Your task to perform on an android device: Open Google Chrome and open the bookmarks view Image 0: 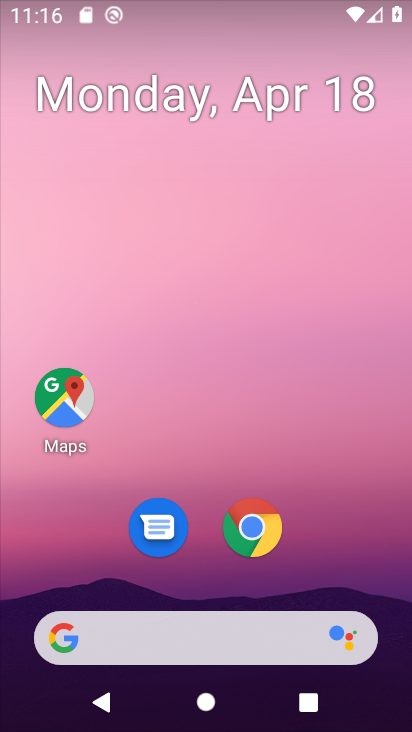
Step 0: click (261, 531)
Your task to perform on an android device: Open Google Chrome and open the bookmarks view Image 1: 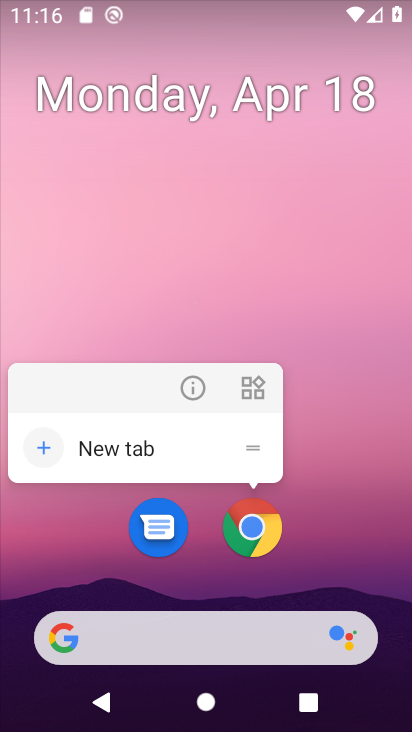
Step 1: click (261, 531)
Your task to perform on an android device: Open Google Chrome and open the bookmarks view Image 2: 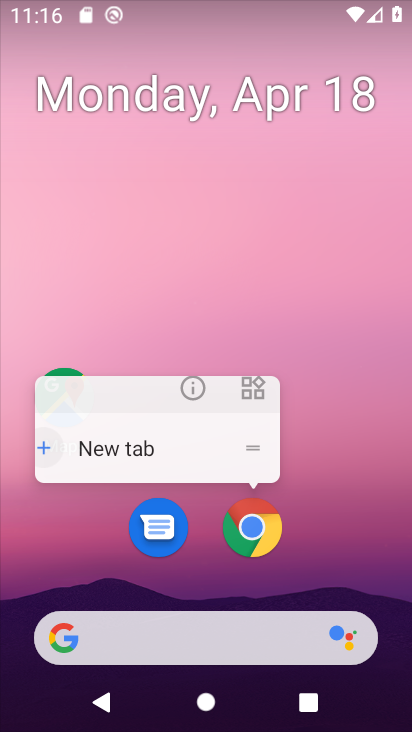
Step 2: click (261, 531)
Your task to perform on an android device: Open Google Chrome and open the bookmarks view Image 3: 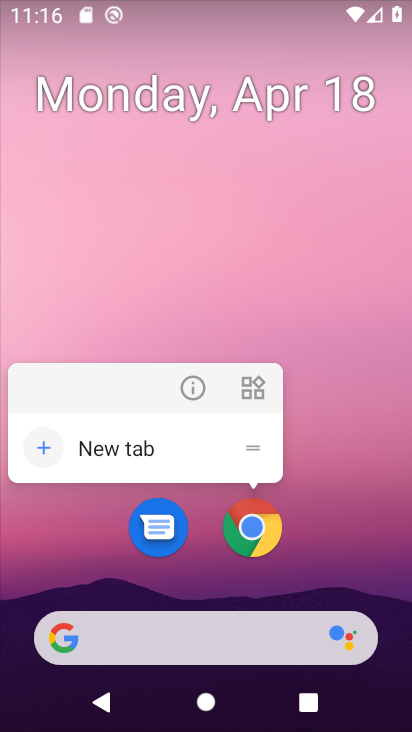
Step 3: click (261, 531)
Your task to perform on an android device: Open Google Chrome and open the bookmarks view Image 4: 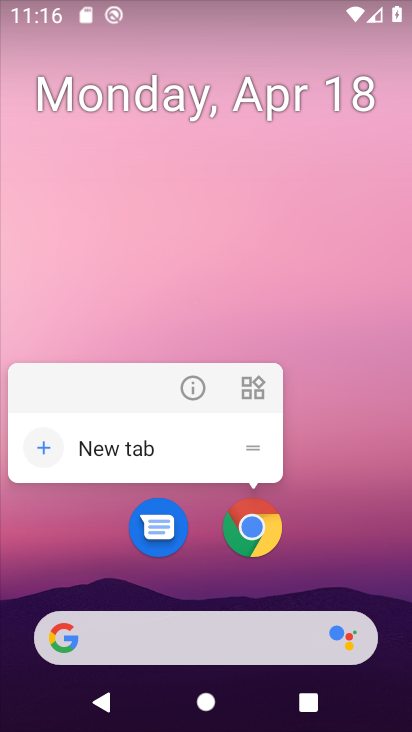
Step 4: click (261, 531)
Your task to perform on an android device: Open Google Chrome and open the bookmarks view Image 5: 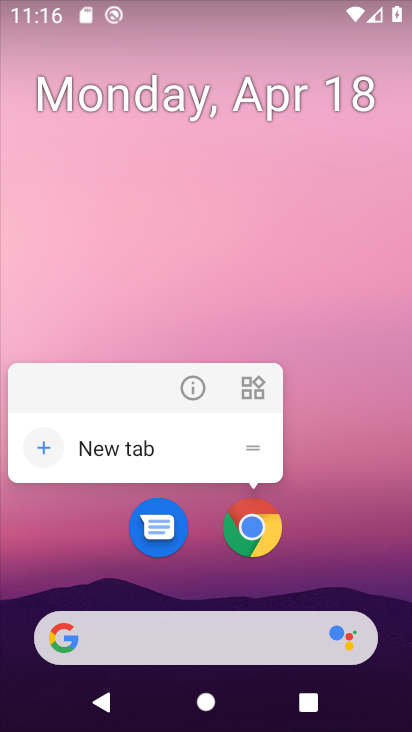
Step 5: click (261, 531)
Your task to perform on an android device: Open Google Chrome and open the bookmarks view Image 6: 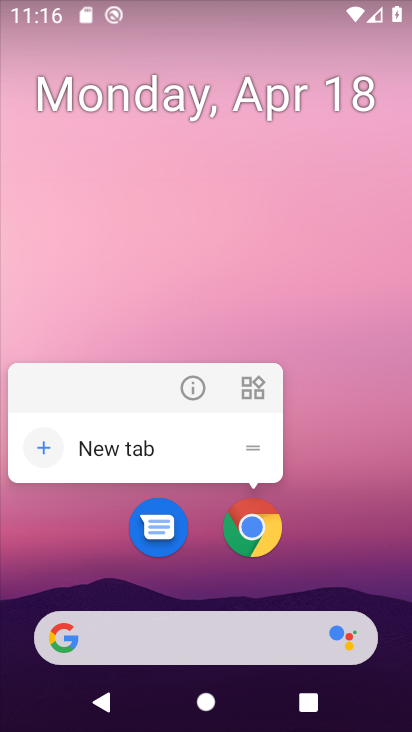
Step 6: click (261, 531)
Your task to perform on an android device: Open Google Chrome and open the bookmarks view Image 7: 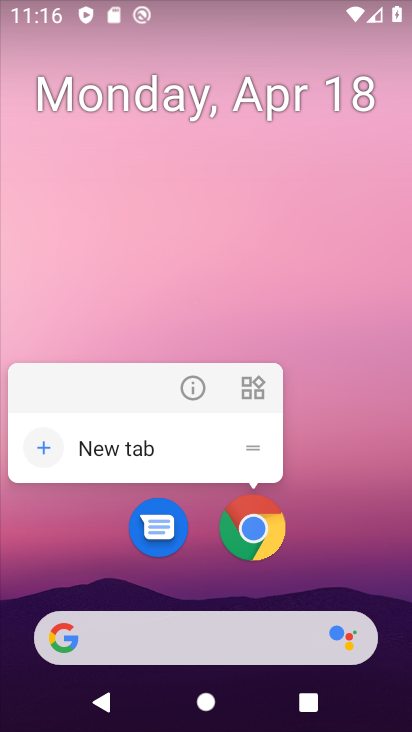
Step 7: click (261, 531)
Your task to perform on an android device: Open Google Chrome and open the bookmarks view Image 8: 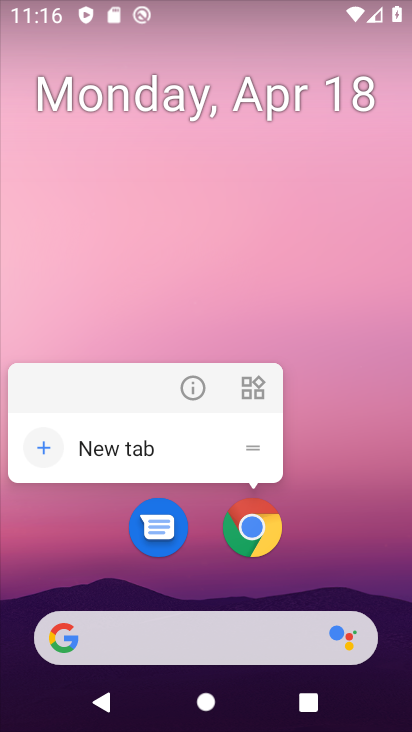
Step 8: click (261, 531)
Your task to perform on an android device: Open Google Chrome and open the bookmarks view Image 9: 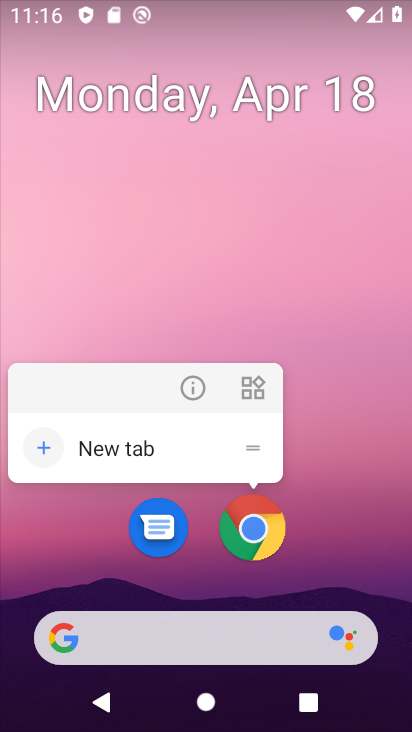
Step 9: click (261, 531)
Your task to perform on an android device: Open Google Chrome and open the bookmarks view Image 10: 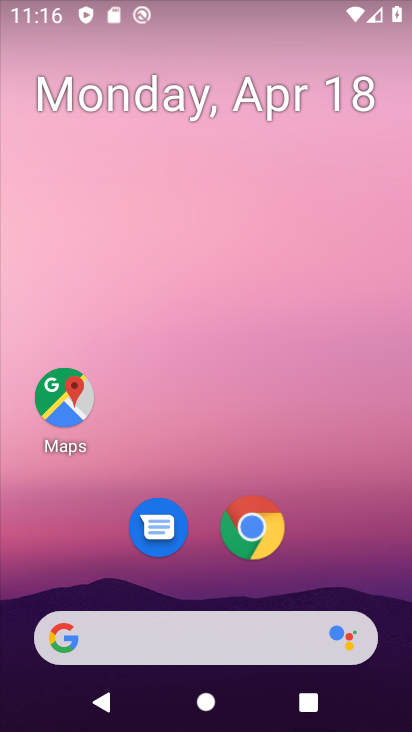
Step 10: click (261, 531)
Your task to perform on an android device: Open Google Chrome and open the bookmarks view Image 11: 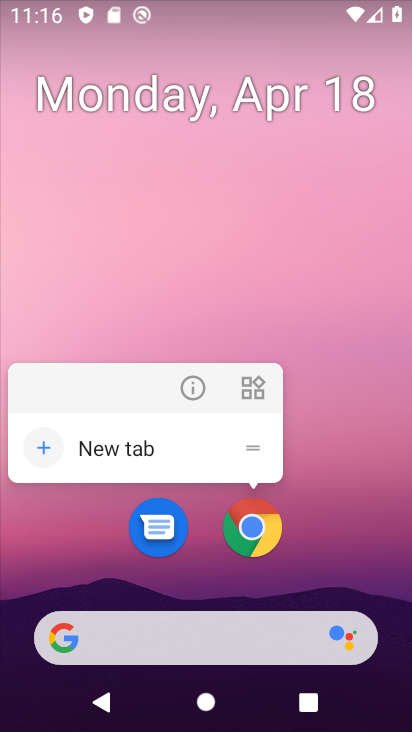
Step 11: click (261, 531)
Your task to perform on an android device: Open Google Chrome and open the bookmarks view Image 12: 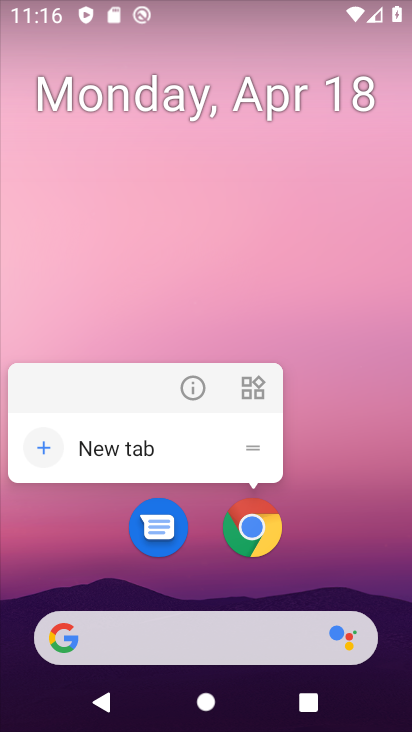
Step 12: click (261, 531)
Your task to perform on an android device: Open Google Chrome and open the bookmarks view Image 13: 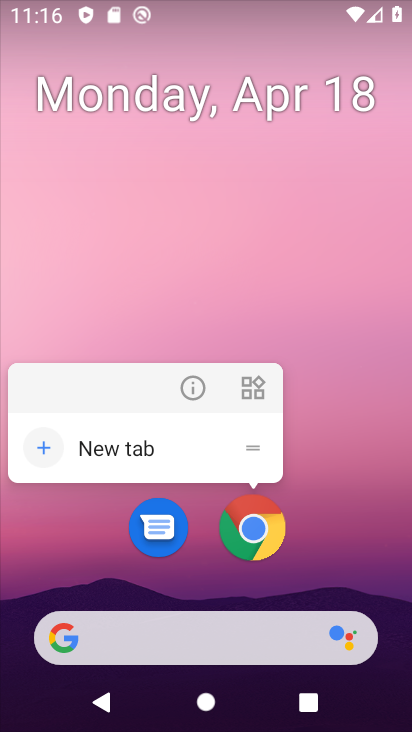
Step 13: click (261, 531)
Your task to perform on an android device: Open Google Chrome and open the bookmarks view Image 14: 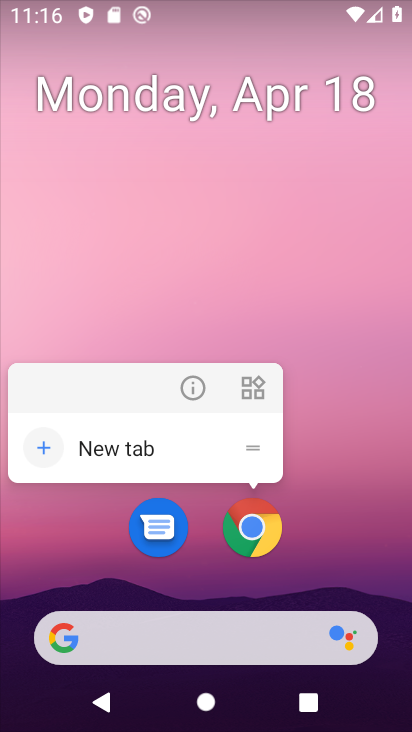
Step 14: click (261, 531)
Your task to perform on an android device: Open Google Chrome and open the bookmarks view Image 15: 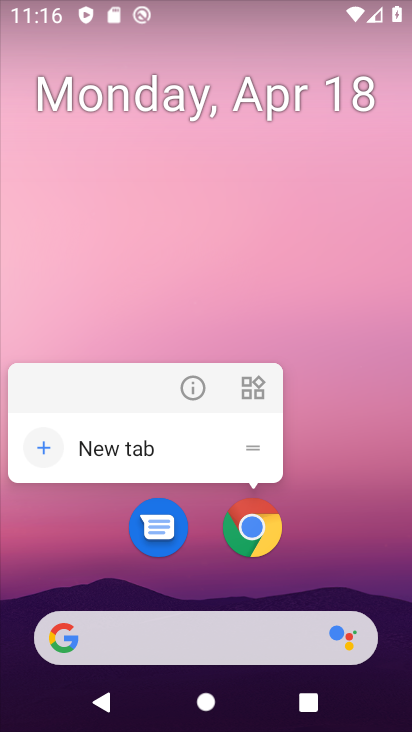
Step 15: click (261, 531)
Your task to perform on an android device: Open Google Chrome and open the bookmarks view Image 16: 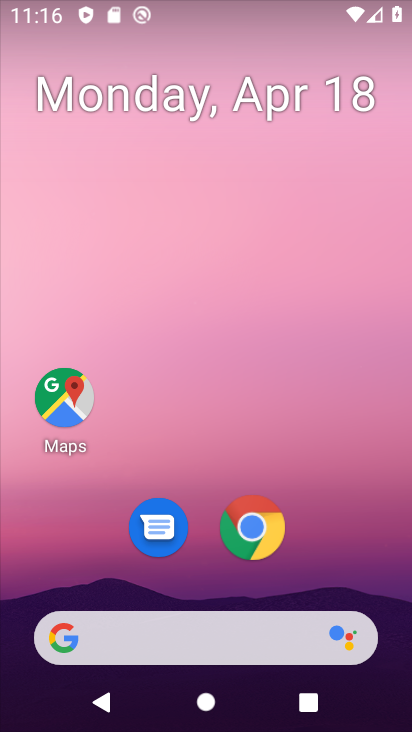
Step 16: click (261, 531)
Your task to perform on an android device: Open Google Chrome and open the bookmarks view Image 17: 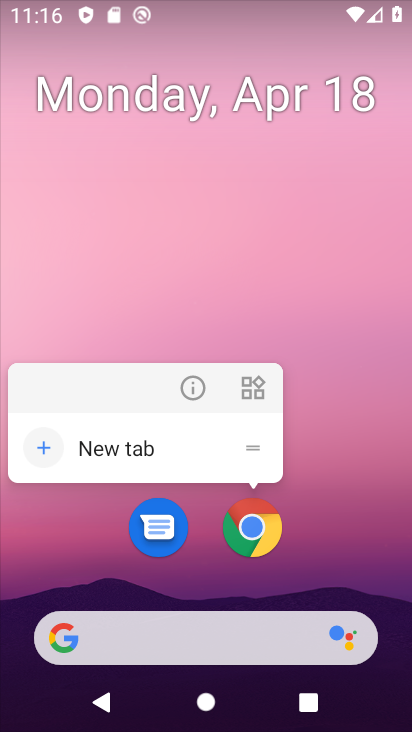
Step 17: click (261, 531)
Your task to perform on an android device: Open Google Chrome and open the bookmarks view Image 18: 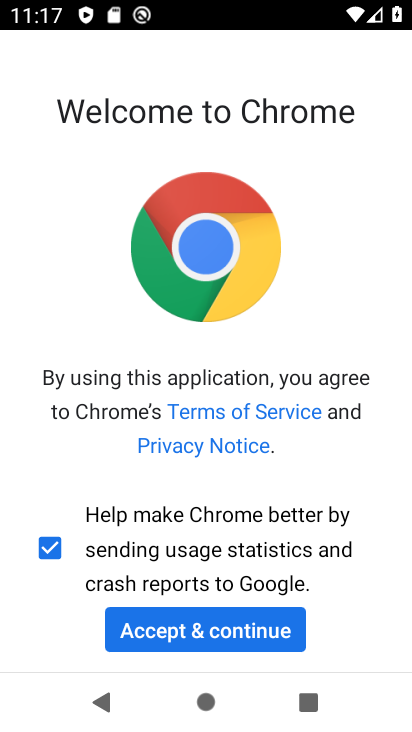
Step 18: click (205, 629)
Your task to perform on an android device: Open Google Chrome and open the bookmarks view Image 19: 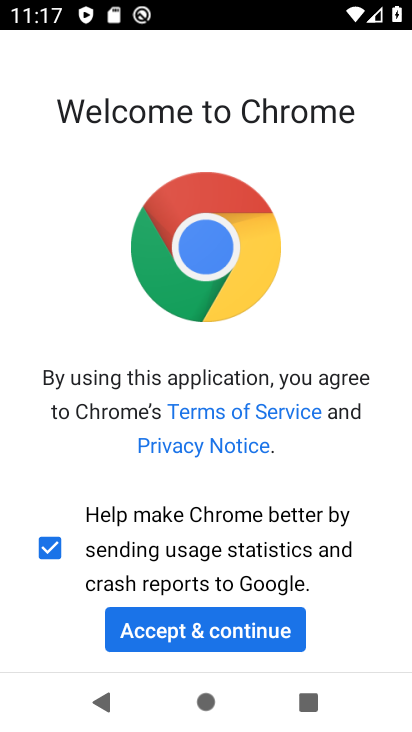
Step 19: click (205, 629)
Your task to perform on an android device: Open Google Chrome and open the bookmarks view Image 20: 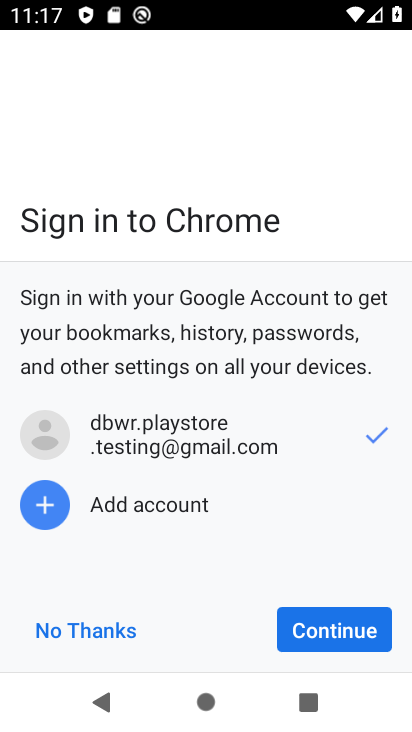
Step 20: click (94, 622)
Your task to perform on an android device: Open Google Chrome and open the bookmarks view Image 21: 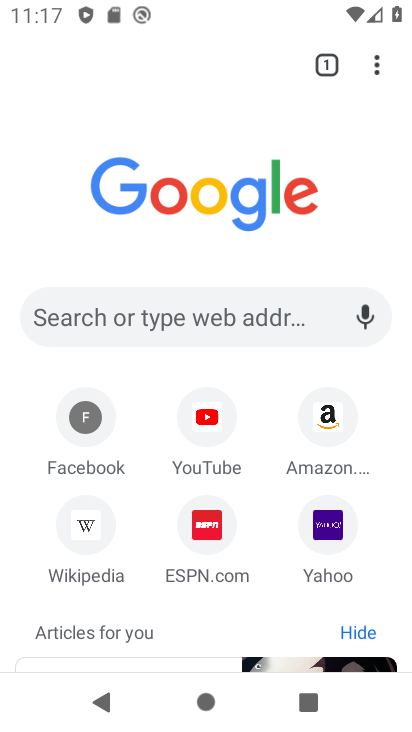
Step 21: click (375, 69)
Your task to perform on an android device: Open Google Chrome and open the bookmarks view Image 22: 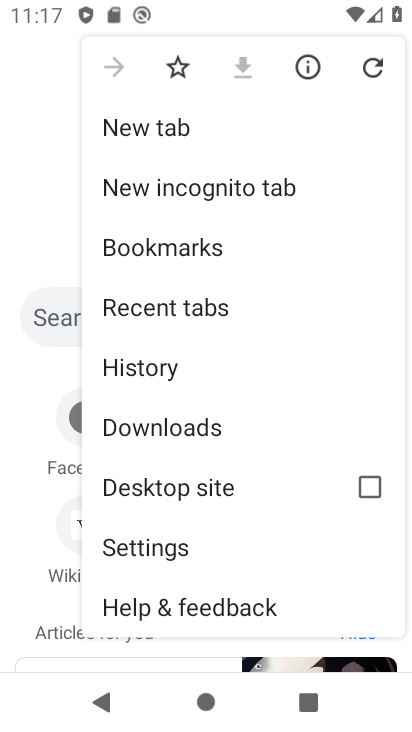
Step 22: click (114, 233)
Your task to perform on an android device: Open Google Chrome and open the bookmarks view Image 23: 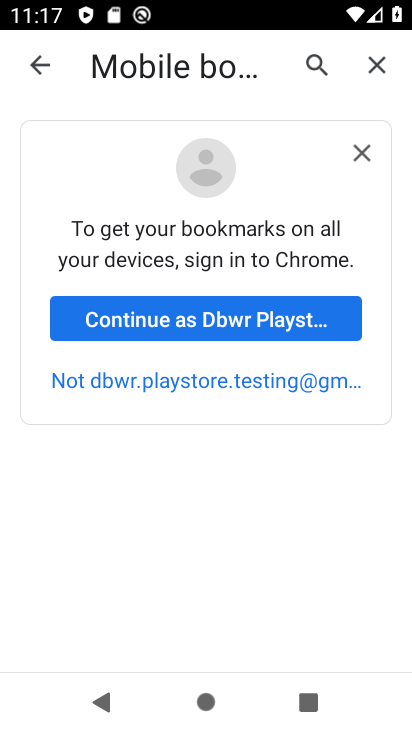
Step 23: click (233, 309)
Your task to perform on an android device: Open Google Chrome and open the bookmarks view Image 24: 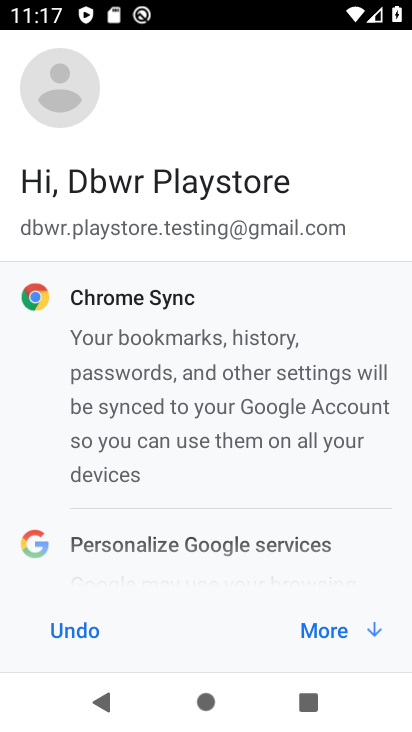
Step 24: click (294, 630)
Your task to perform on an android device: Open Google Chrome and open the bookmarks view Image 25: 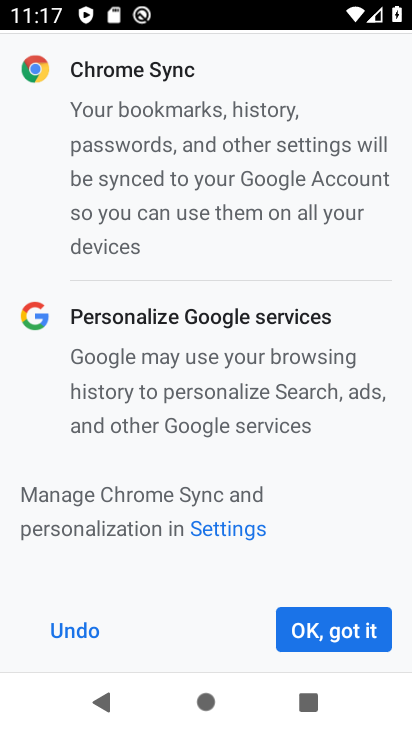
Step 25: click (294, 630)
Your task to perform on an android device: Open Google Chrome and open the bookmarks view Image 26: 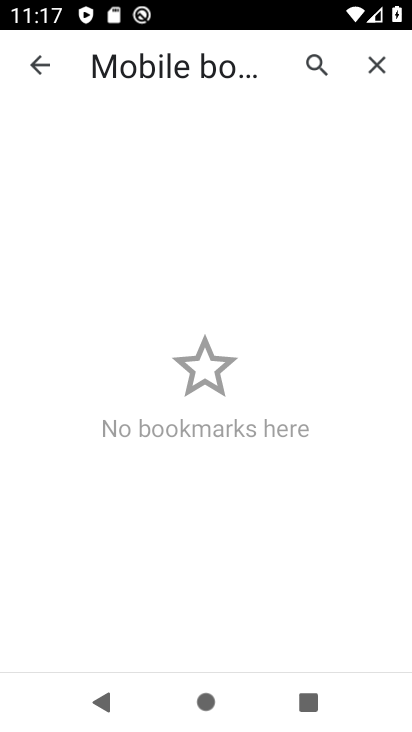
Step 26: task complete